Your task to perform on an android device: Open network settings Image 0: 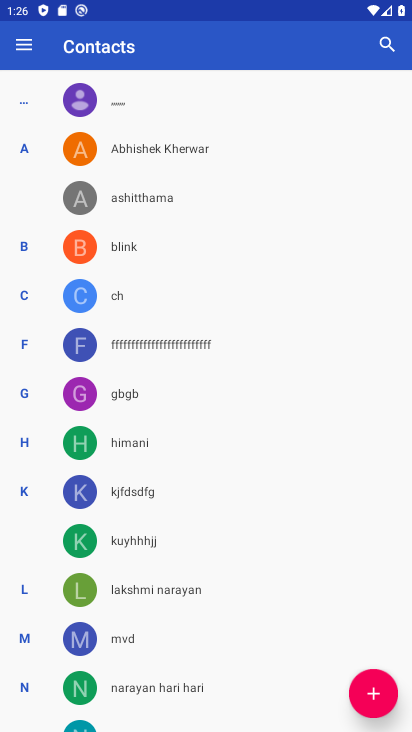
Step 0: press home button
Your task to perform on an android device: Open network settings Image 1: 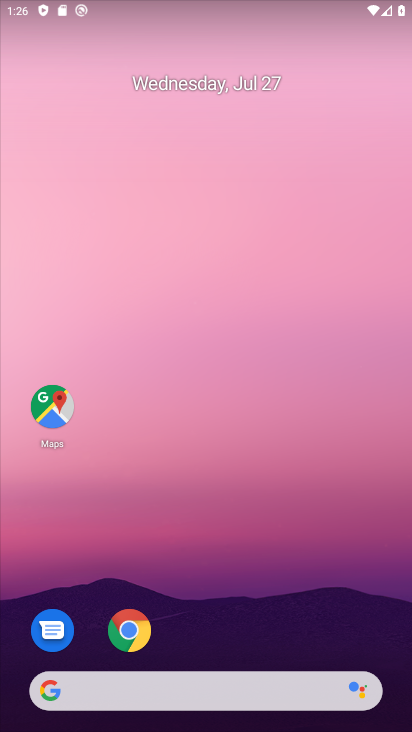
Step 1: drag from (386, 639) to (317, 172)
Your task to perform on an android device: Open network settings Image 2: 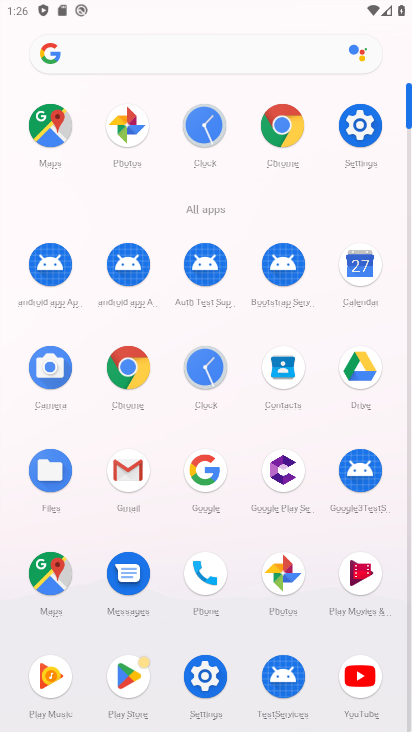
Step 2: click (206, 676)
Your task to perform on an android device: Open network settings Image 3: 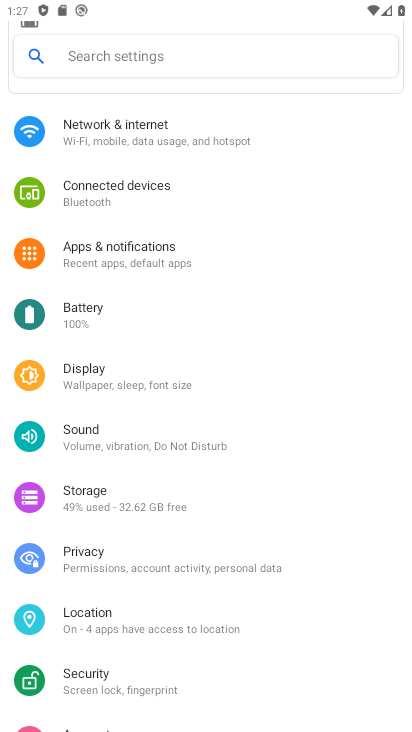
Step 3: click (81, 127)
Your task to perform on an android device: Open network settings Image 4: 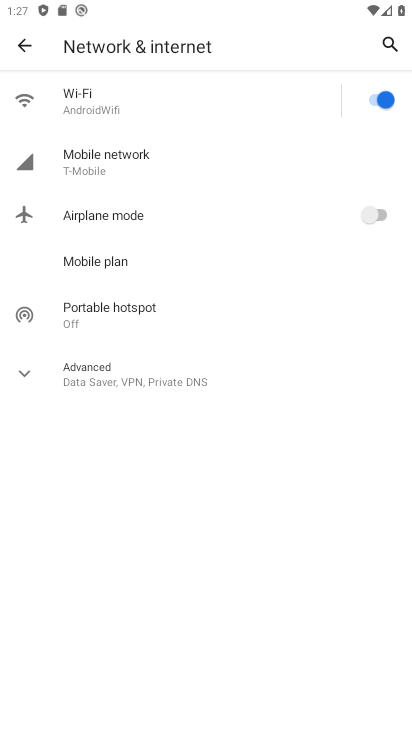
Step 4: click (93, 157)
Your task to perform on an android device: Open network settings Image 5: 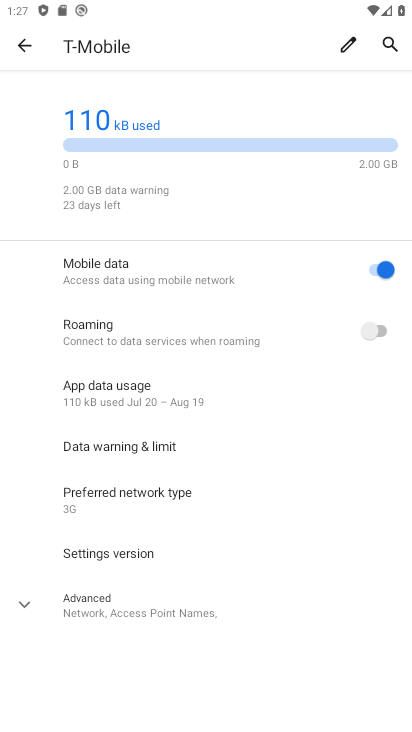
Step 5: click (26, 608)
Your task to perform on an android device: Open network settings Image 6: 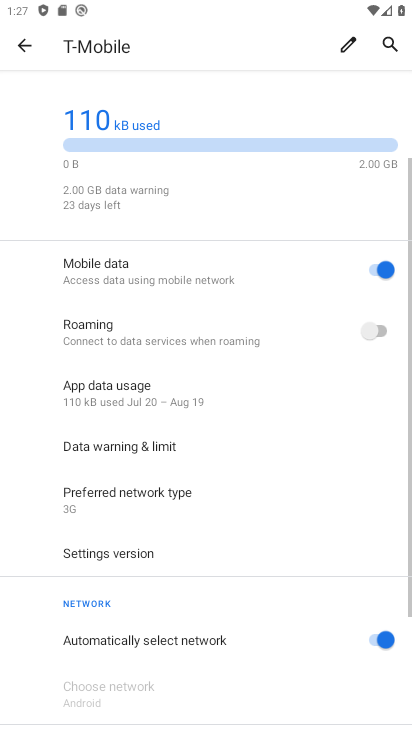
Step 6: task complete